Your task to perform on an android device: turn on airplane mode Image 0: 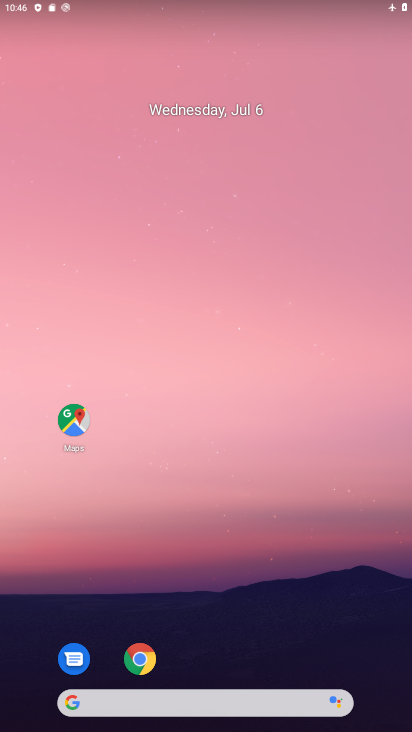
Step 0: drag from (212, 644) to (217, 75)
Your task to perform on an android device: turn on airplane mode Image 1: 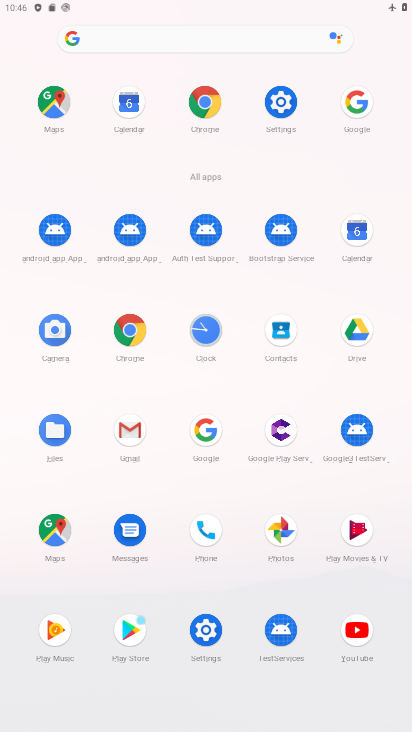
Step 1: click (292, 117)
Your task to perform on an android device: turn on airplane mode Image 2: 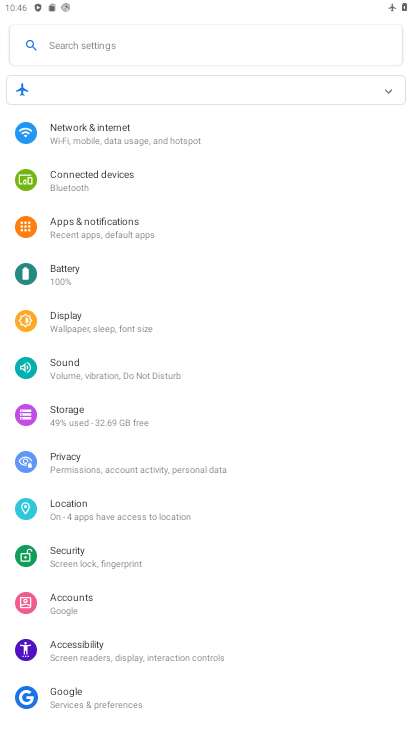
Step 2: click (147, 142)
Your task to perform on an android device: turn on airplane mode Image 3: 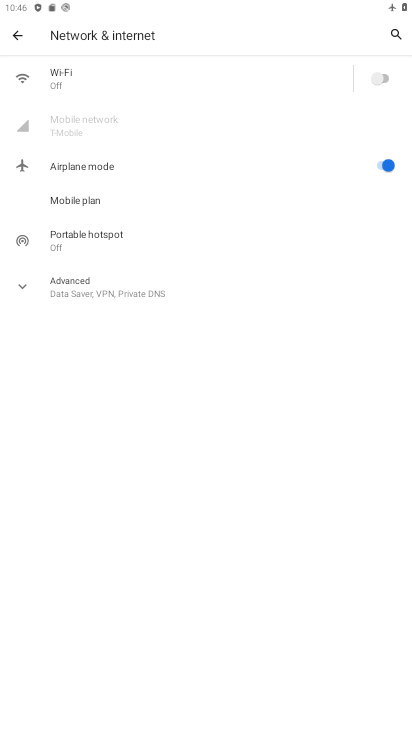
Step 3: task complete